Your task to perform on an android device: How big is the sun? Image 0: 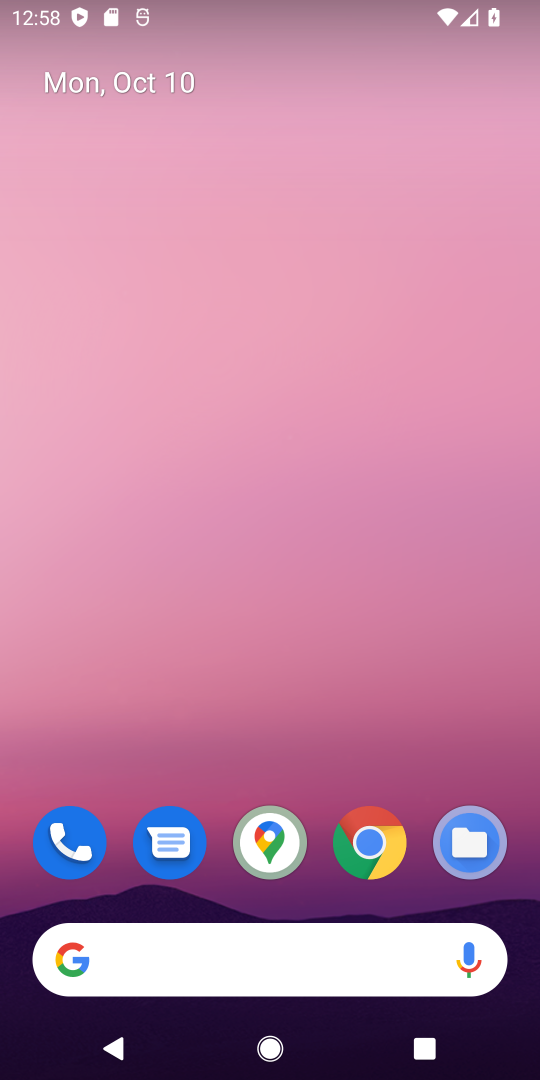
Step 0: click (361, 855)
Your task to perform on an android device: How big is the sun? Image 1: 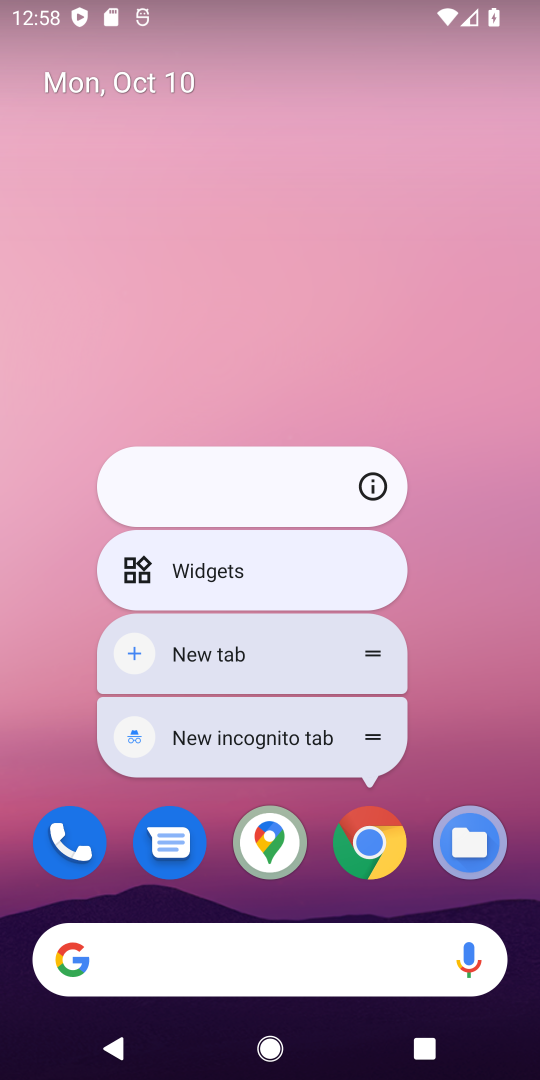
Step 1: click (379, 865)
Your task to perform on an android device: How big is the sun? Image 2: 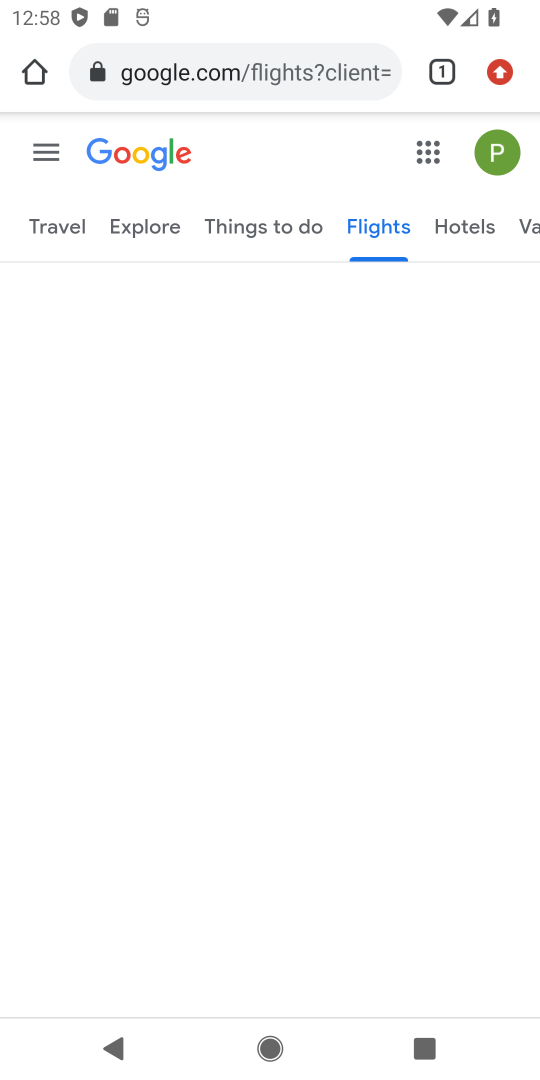
Step 2: click (232, 64)
Your task to perform on an android device: How big is the sun? Image 3: 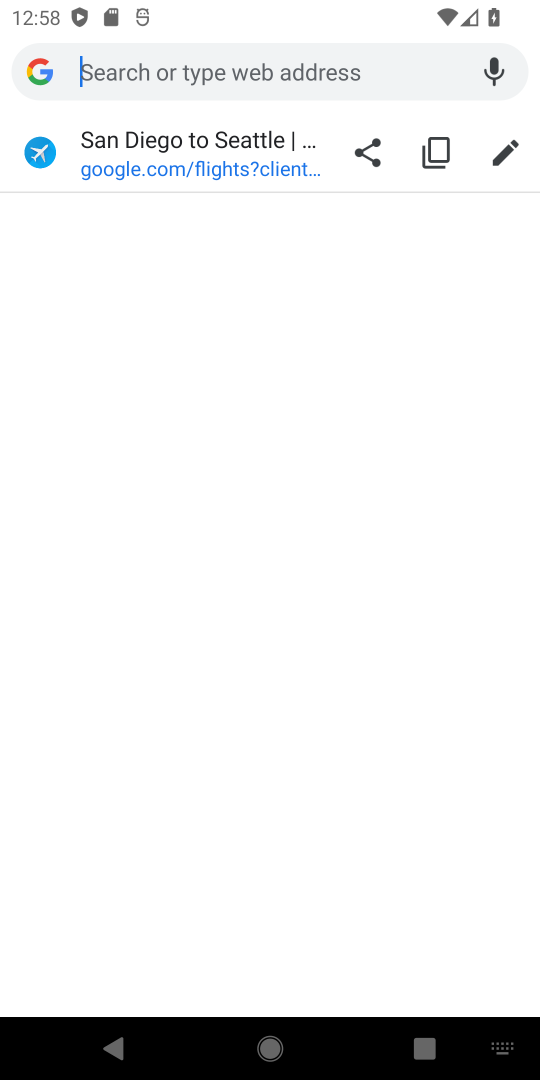
Step 3: type "how big is the sun"
Your task to perform on an android device: How big is the sun? Image 4: 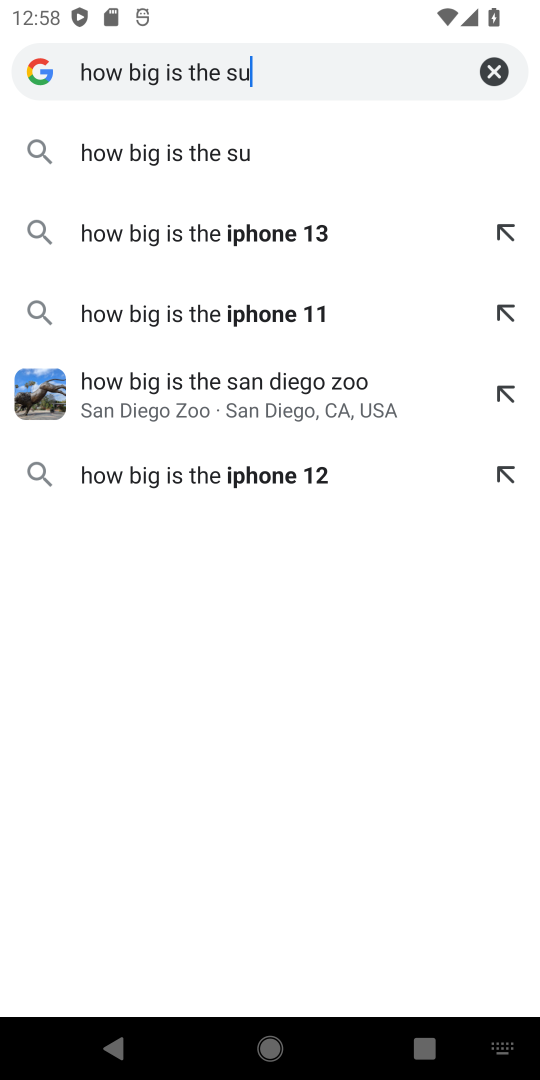
Step 4: type ""
Your task to perform on an android device: How big is the sun? Image 5: 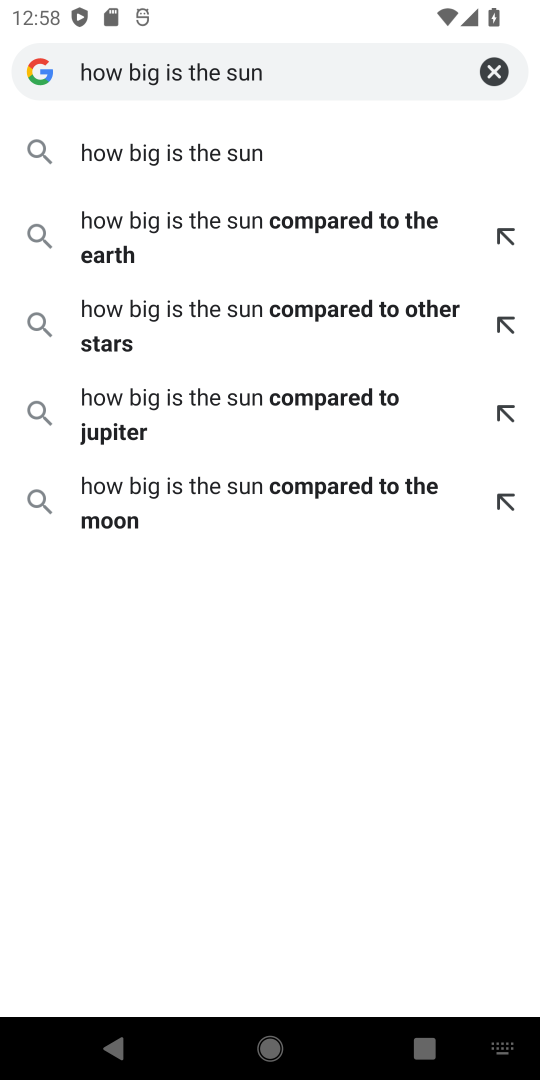
Step 5: press enter
Your task to perform on an android device: How big is the sun? Image 6: 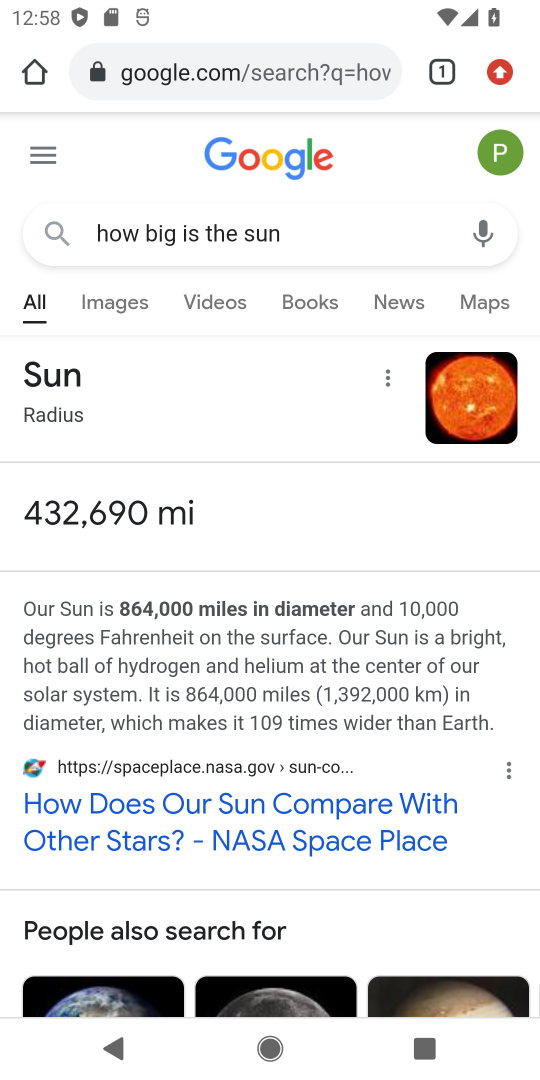
Step 6: drag from (422, 722) to (437, 187)
Your task to perform on an android device: How big is the sun? Image 7: 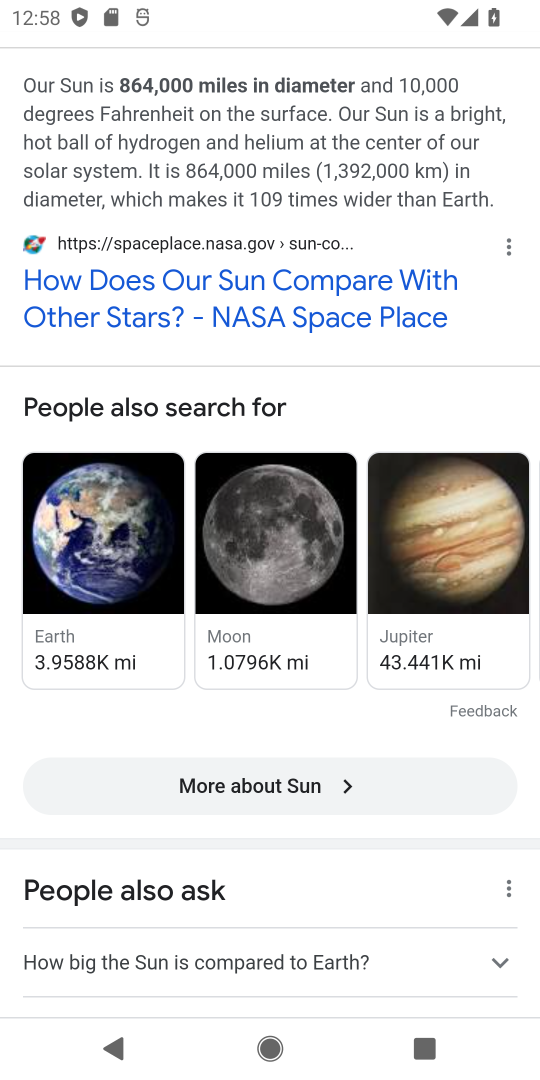
Step 7: click (382, 822)
Your task to perform on an android device: How big is the sun? Image 8: 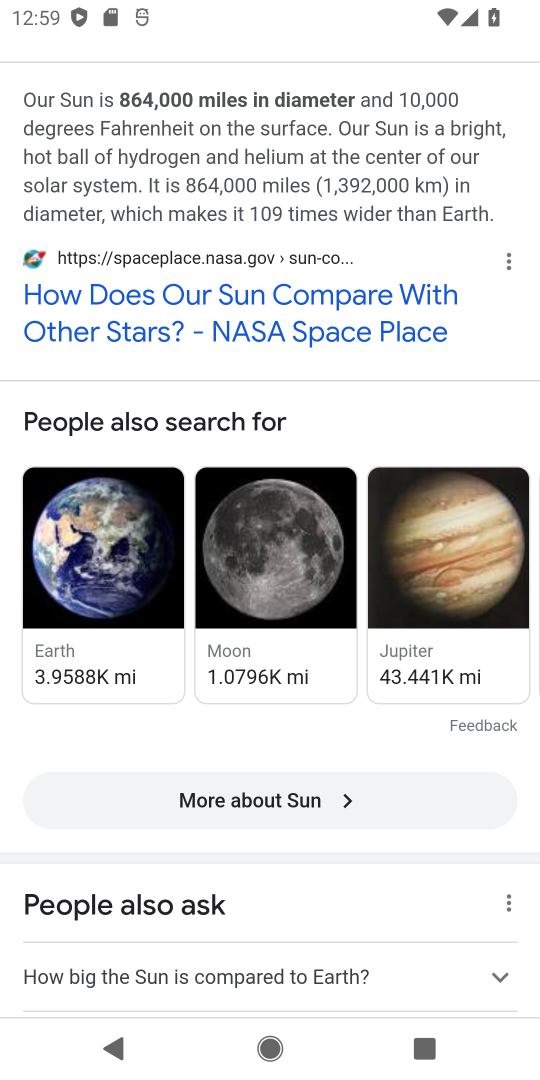
Step 8: task complete